Your task to perform on an android device: Open calendar and show me the first week of next month Image 0: 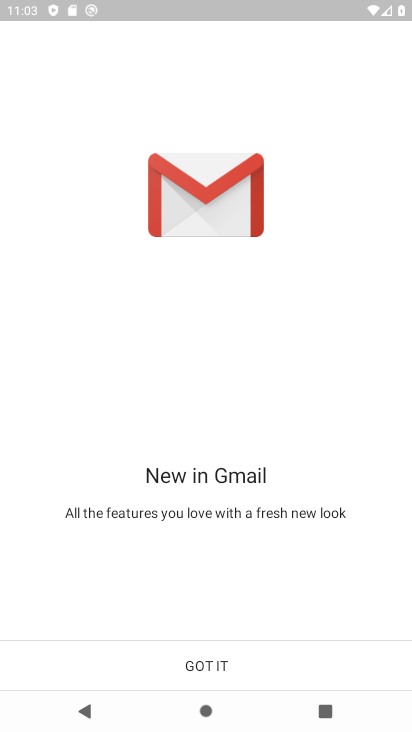
Step 0: click (213, 657)
Your task to perform on an android device: Open calendar and show me the first week of next month Image 1: 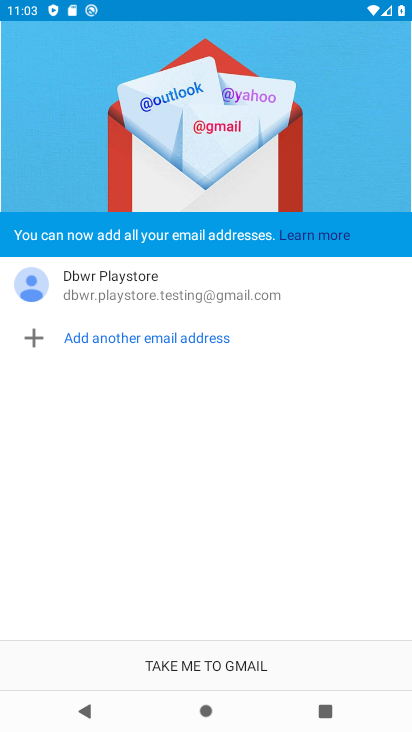
Step 1: click (215, 661)
Your task to perform on an android device: Open calendar and show me the first week of next month Image 2: 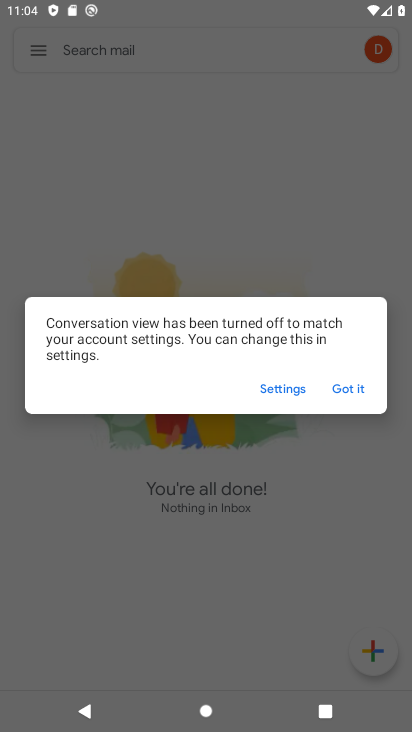
Step 2: click (354, 378)
Your task to perform on an android device: Open calendar and show me the first week of next month Image 3: 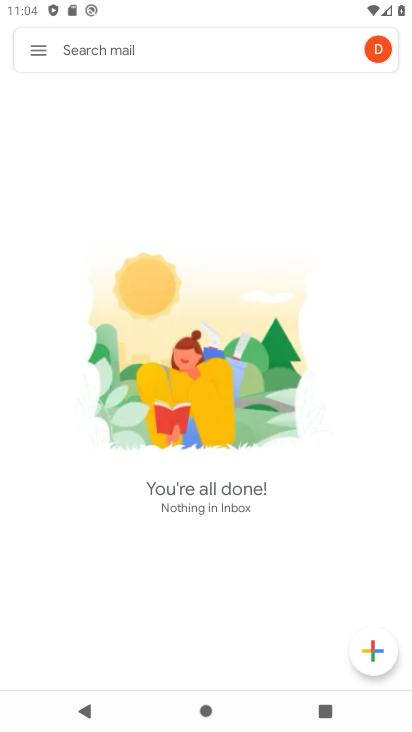
Step 3: drag from (199, 541) to (227, 174)
Your task to perform on an android device: Open calendar and show me the first week of next month Image 4: 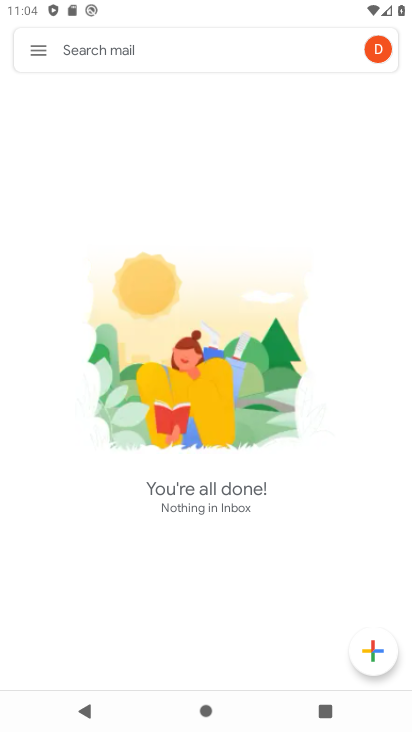
Step 4: press back button
Your task to perform on an android device: Open calendar and show me the first week of next month Image 5: 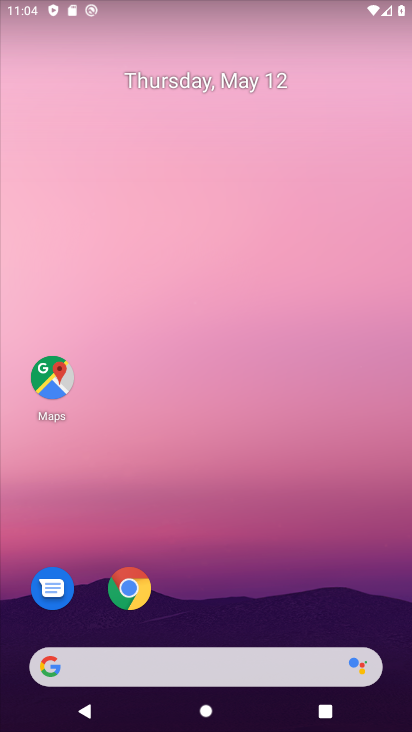
Step 5: drag from (170, 625) to (170, 56)
Your task to perform on an android device: Open calendar and show me the first week of next month Image 6: 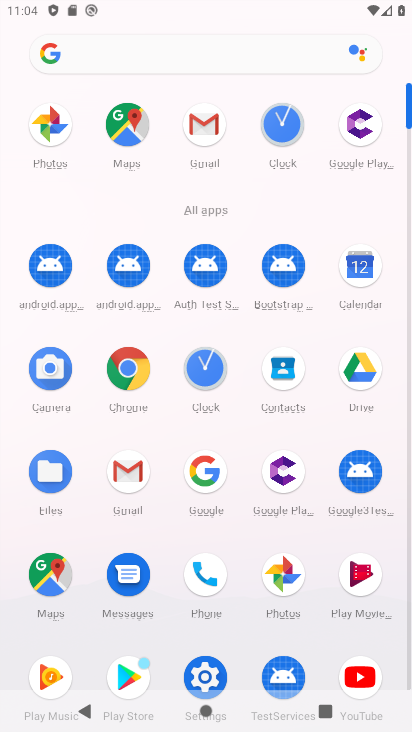
Step 6: click (353, 284)
Your task to perform on an android device: Open calendar and show me the first week of next month Image 7: 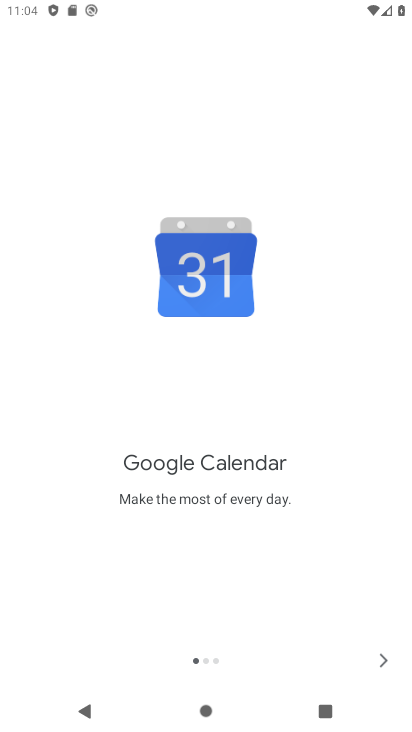
Step 7: click (193, 447)
Your task to perform on an android device: Open calendar and show me the first week of next month Image 8: 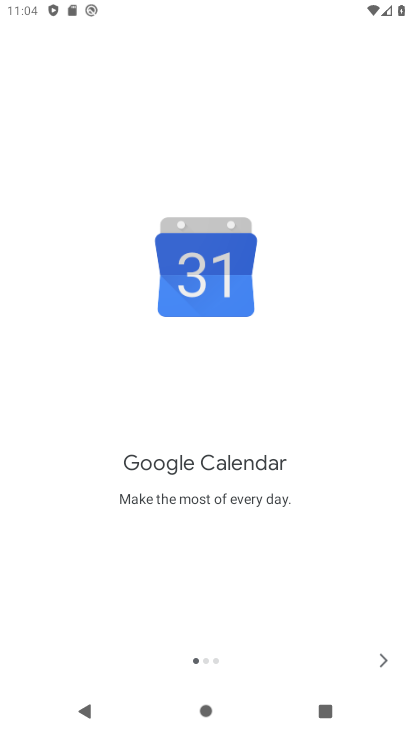
Step 8: click (385, 664)
Your task to perform on an android device: Open calendar and show me the first week of next month Image 9: 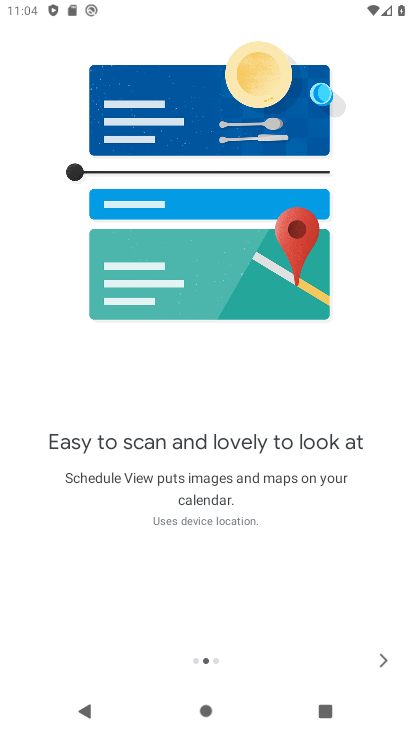
Step 9: click (359, 659)
Your task to perform on an android device: Open calendar and show me the first week of next month Image 10: 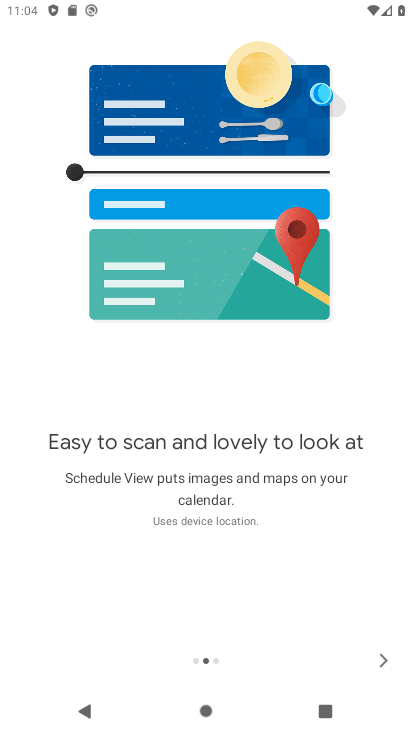
Step 10: click (369, 665)
Your task to perform on an android device: Open calendar and show me the first week of next month Image 11: 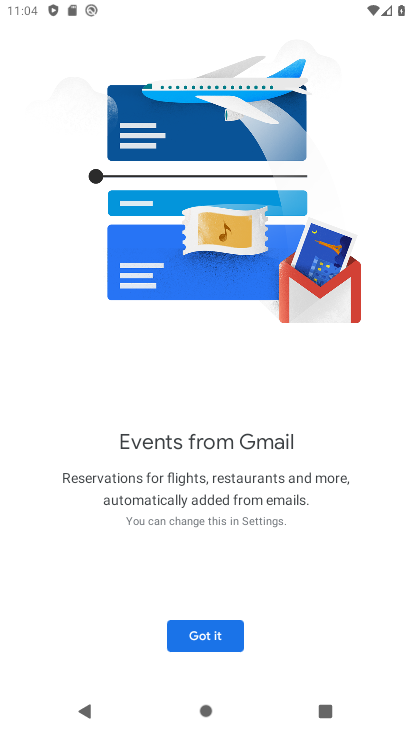
Step 11: click (181, 626)
Your task to perform on an android device: Open calendar and show me the first week of next month Image 12: 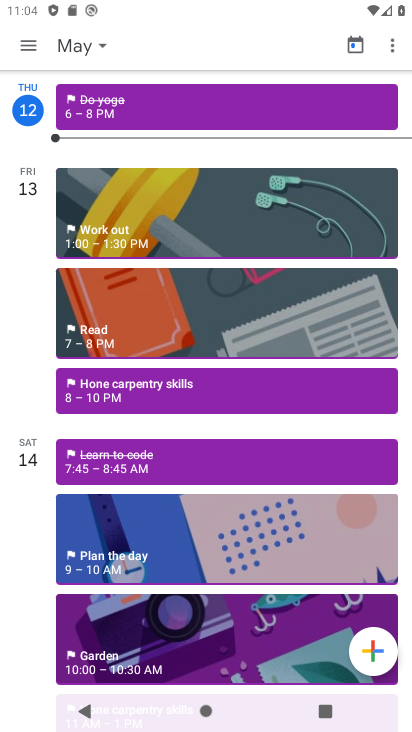
Step 12: drag from (120, 602) to (196, 128)
Your task to perform on an android device: Open calendar and show me the first week of next month Image 13: 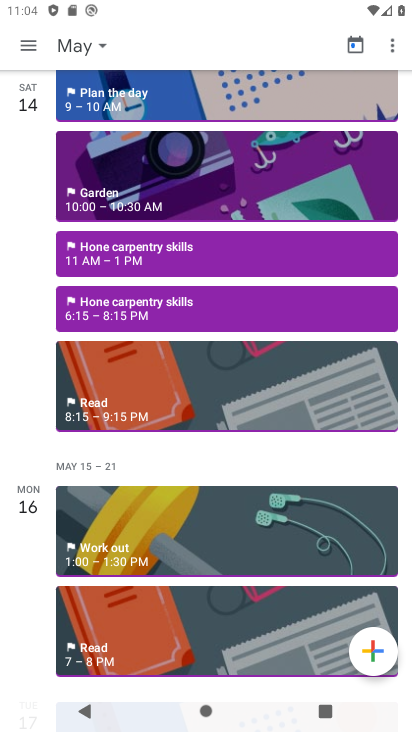
Step 13: drag from (202, 579) to (248, 151)
Your task to perform on an android device: Open calendar and show me the first week of next month Image 14: 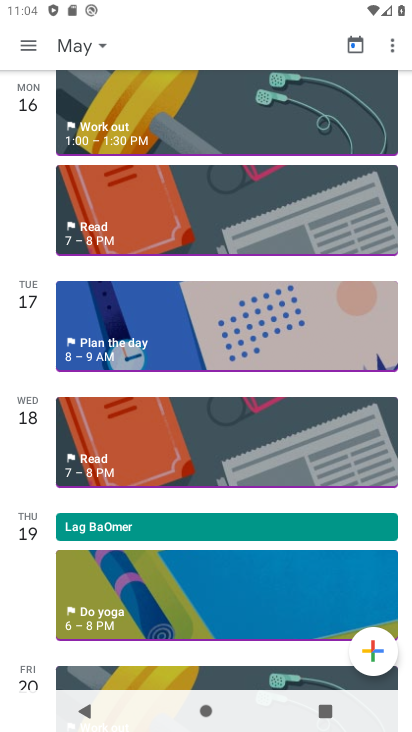
Step 14: click (91, 50)
Your task to perform on an android device: Open calendar and show me the first week of next month Image 15: 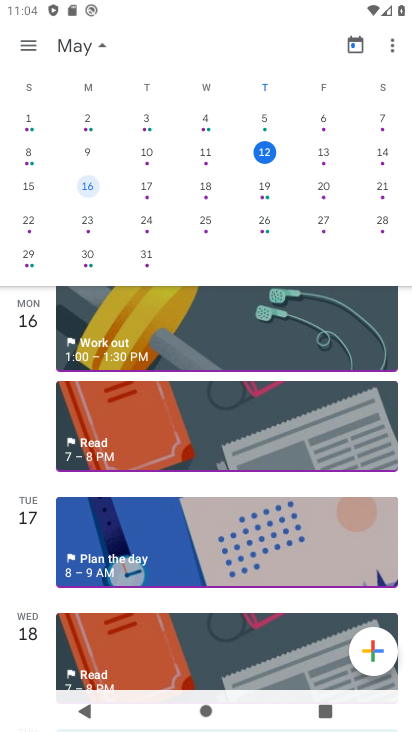
Step 15: drag from (378, 196) to (5, 222)
Your task to perform on an android device: Open calendar and show me the first week of next month Image 16: 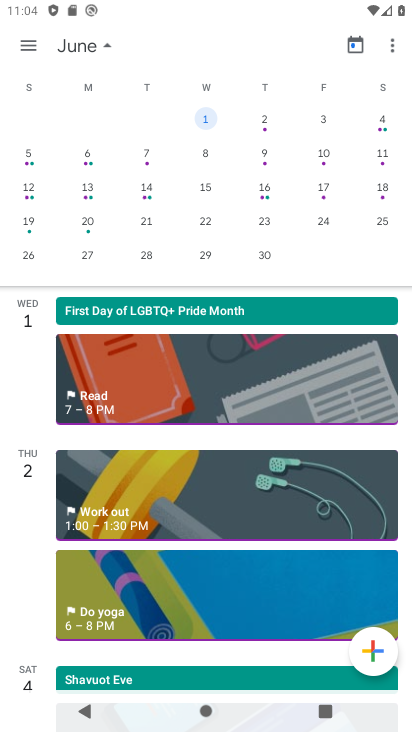
Step 16: click (257, 128)
Your task to perform on an android device: Open calendar and show me the first week of next month Image 17: 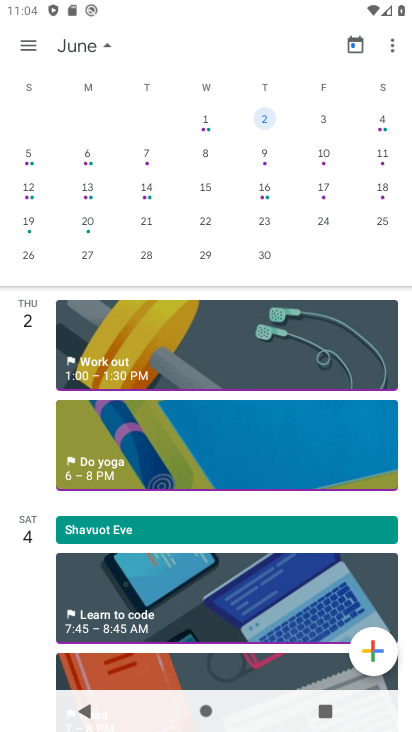
Step 17: task complete